Your task to perform on an android device: Open settings on Google Maps Image 0: 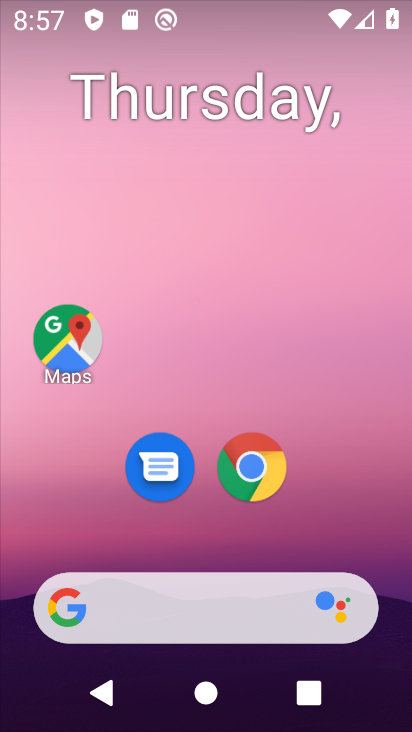
Step 0: drag from (397, 10) to (362, 9)
Your task to perform on an android device: Open settings on Google Maps Image 1: 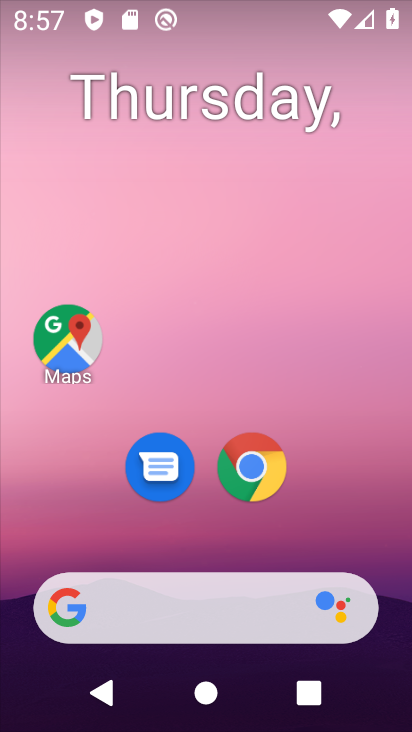
Step 1: drag from (341, 360) to (35, 519)
Your task to perform on an android device: Open settings on Google Maps Image 2: 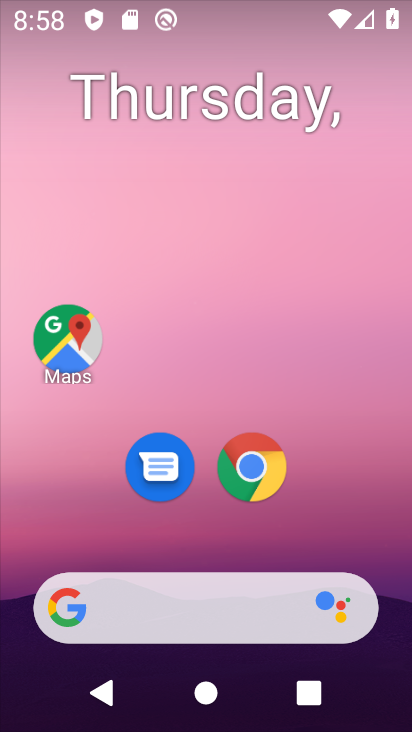
Step 2: drag from (353, 482) to (356, 15)
Your task to perform on an android device: Open settings on Google Maps Image 3: 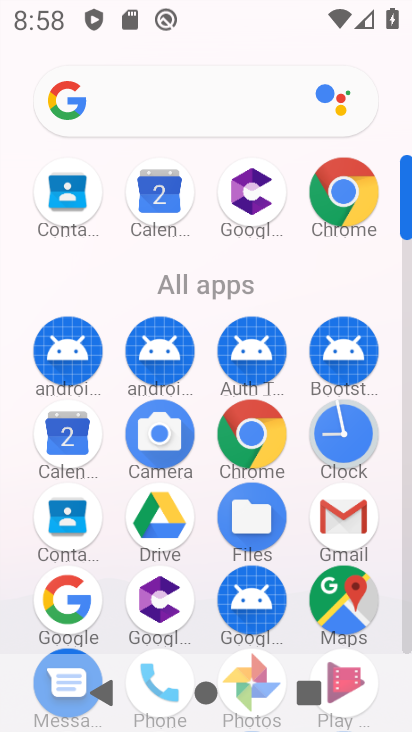
Step 3: click (368, 613)
Your task to perform on an android device: Open settings on Google Maps Image 4: 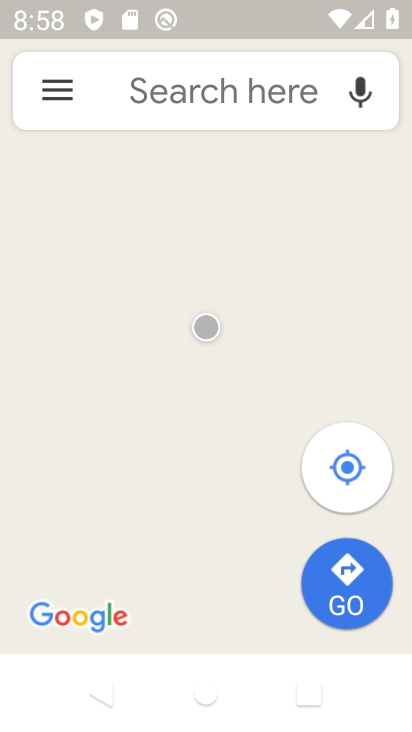
Step 4: click (55, 81)
Your task to perform on an android device: Open settings on Google Maps Image 5: 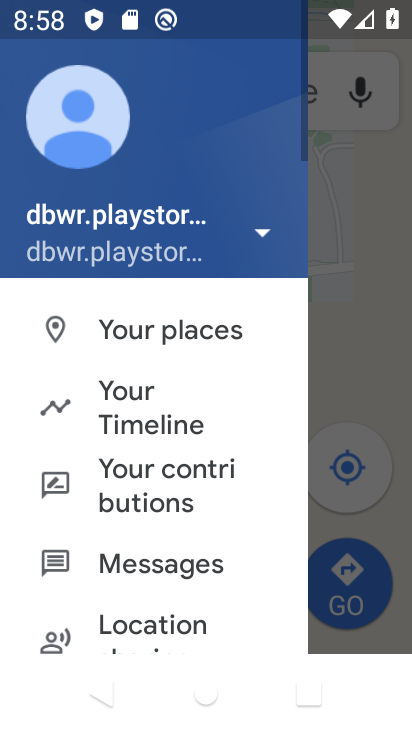
Step 5: drag from (110, 544) to (199, 79)
Your task to perform on an android device: Open settings on Google Maps Image 6: 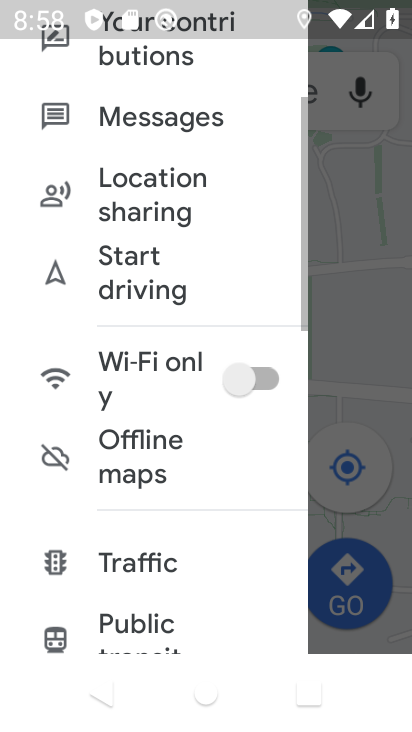
Step 6: drag from (178, 560) to (206, 287)
Your task to perform on an android device: Open settings on Google Maps Image 7: 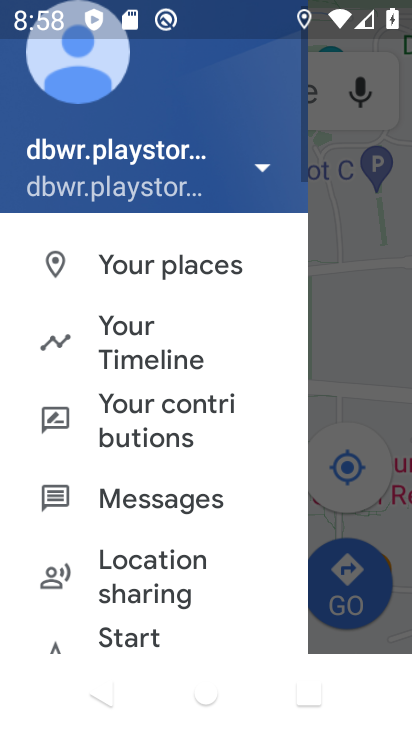
Step 7: drag from (176, 576) to (241, 141)
Your task to perform on an android device: Open settings on Google Maps Image 8: 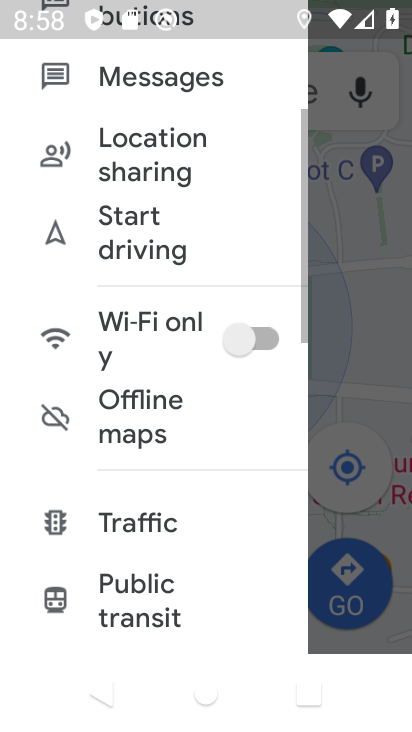
Step 8: drag from (181, 578) to (229, 167)
Your task to perform on an android device: Open settings on Google Maps Image 9: 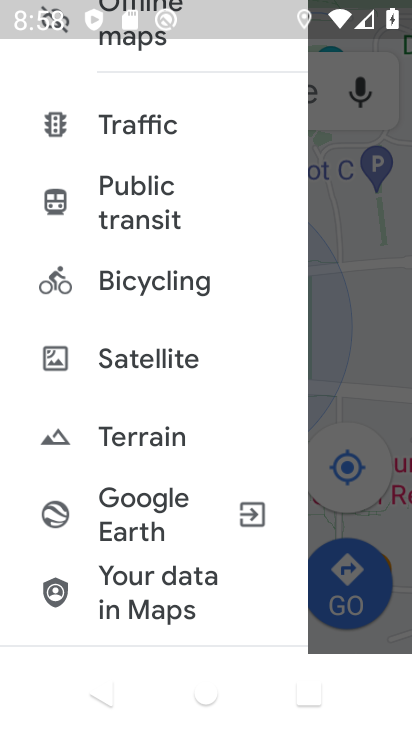
Step 9: drag from (151, 549) to (205, 48)
Your task to perform on an android device: Open settings on Google Maps Image 10: 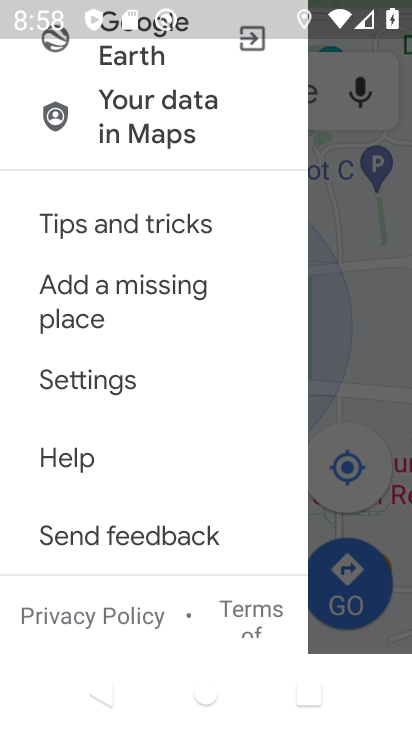
Step 10: click (93, 365)
Your task to perform on an android device: Open settings on Google Maps Image 11: 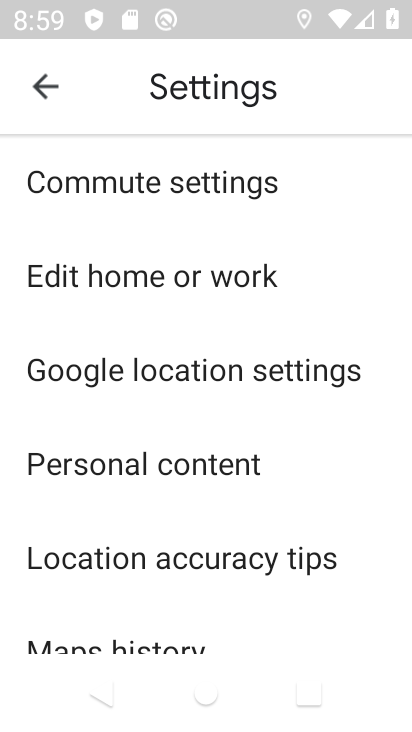
Step 11: task complete